Your task to perform on an android device: open wifi settings Image 0: 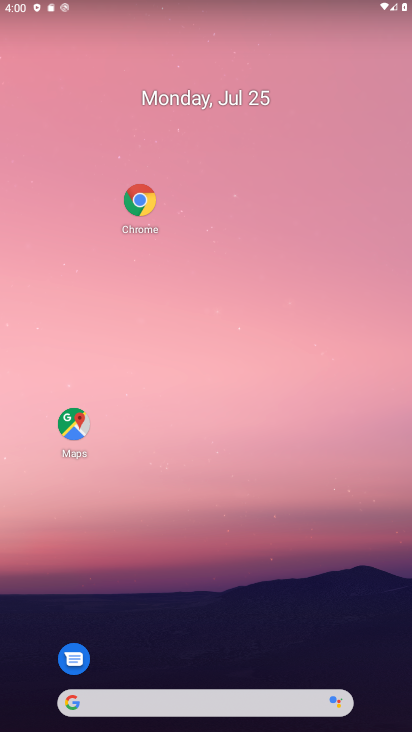
Step 0: drag from (172, 654) to (172, 55)
Your task to perform on an android device: open wifi settings Image 1: 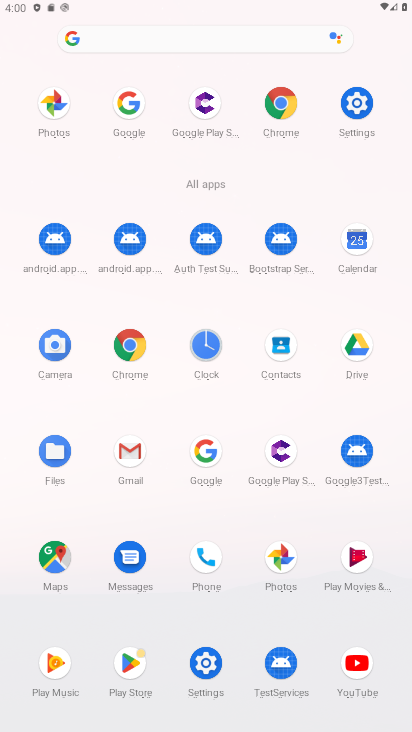
Step 1: click (335, 105)
Your task to perform on an android device: open wifi settings Image 2: 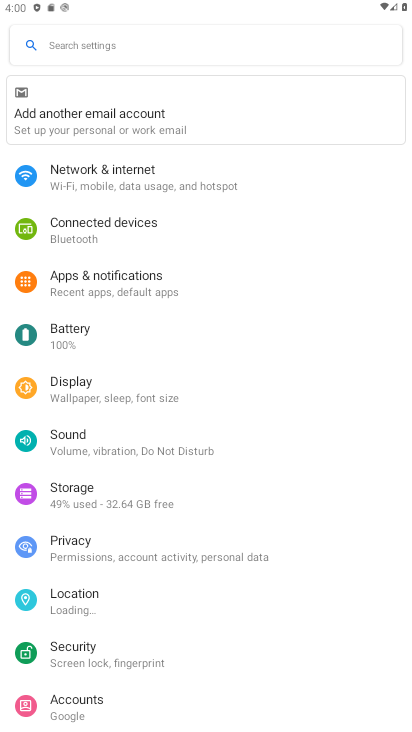
Step 2: click (91, 174)
Your task to perform on an android device: open wifi settings Image 3: 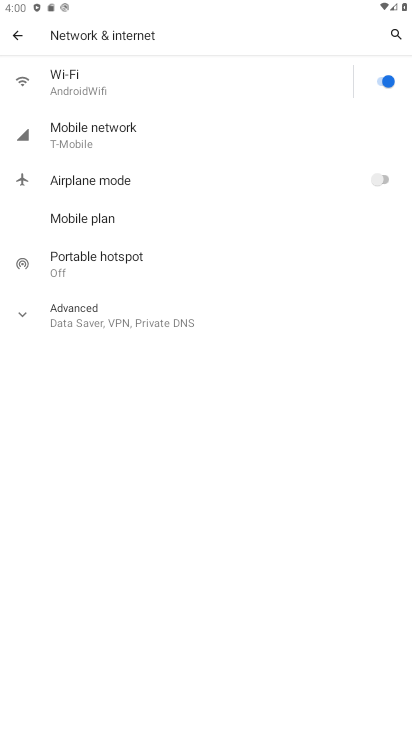
Step 3: click (105, 87)
Your task to perform on an android device: open wifi settings Image 4: 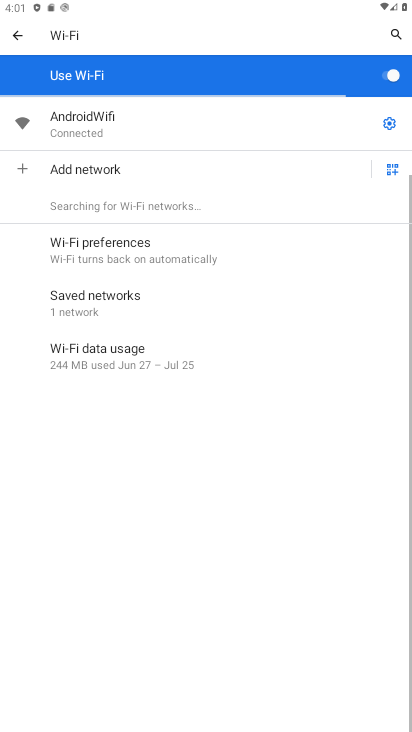
Step 4: task complete